Your task to perform on an android device: change notifications settings Image 0: 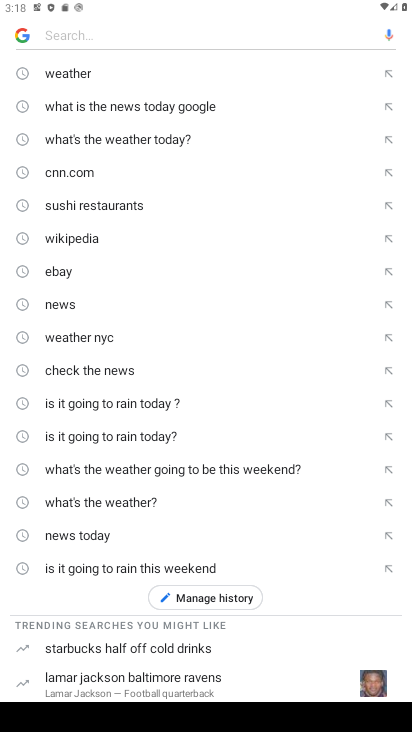
Step 0: press home button
Your task to perform on an android device: change notifications settings Image 1: 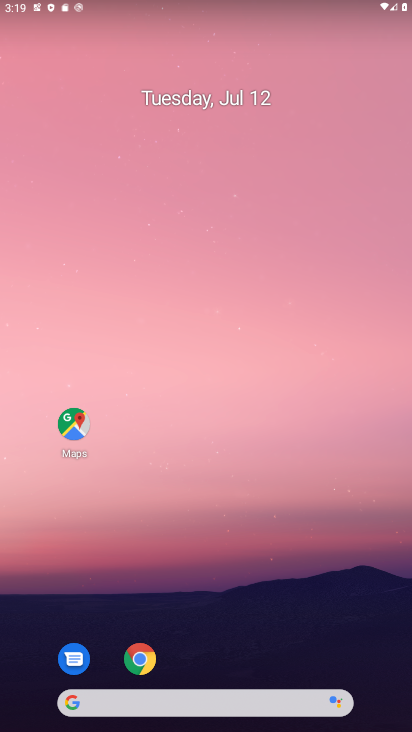
Step 1: click (214, 711)
Your task to perform on an android device: change notifications settings Image 2: 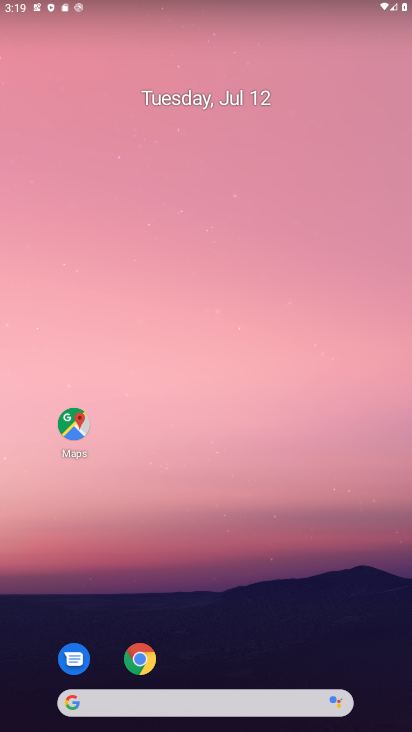
Step 2: drag from (212, 376) to (204, 123)
Your task to perform on an android device: change notifications settings Image 3: 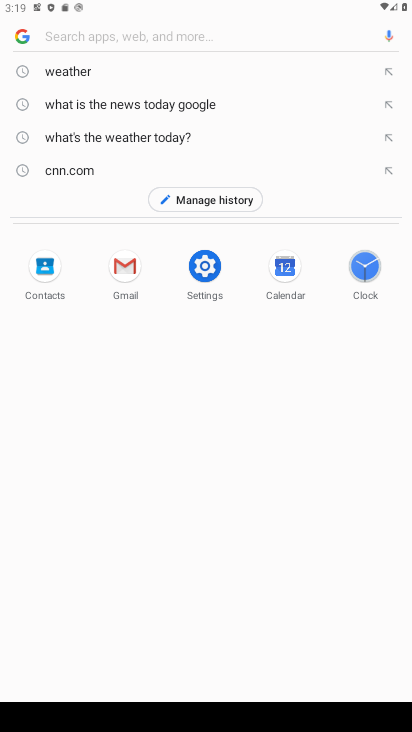
Step 3: press home button
Your task to perform on an android device: change notifications settings Image 4: 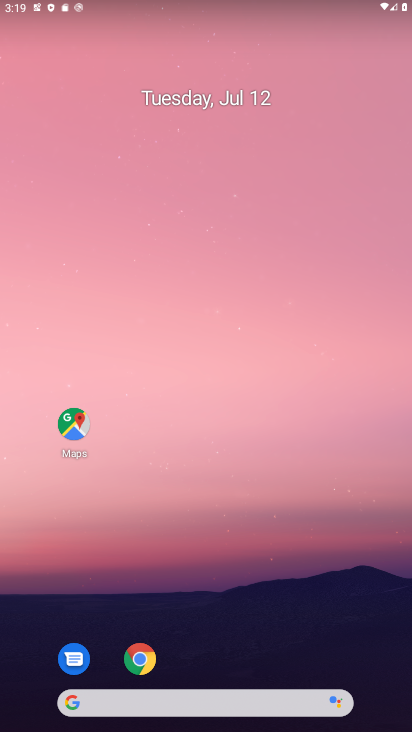
Step 4: drag from (203, 731) to (204, 68)
Your task to perform on an android device: change notifications settings Image 5: 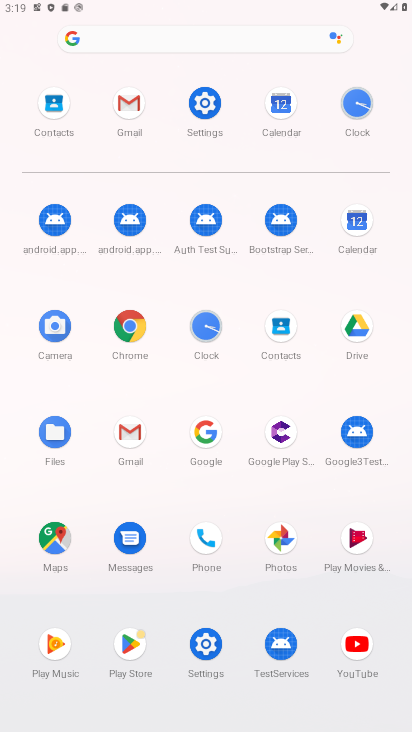
Step 5: click (204, 108)
Your task to perform on an android device: change notifications settings Image 6: 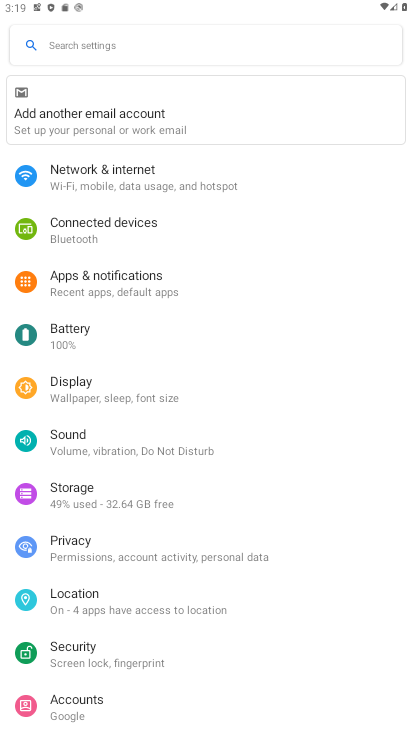
Step 6: click (110, 280)
Your task to perform on an android device: change notifications settings Image 7: 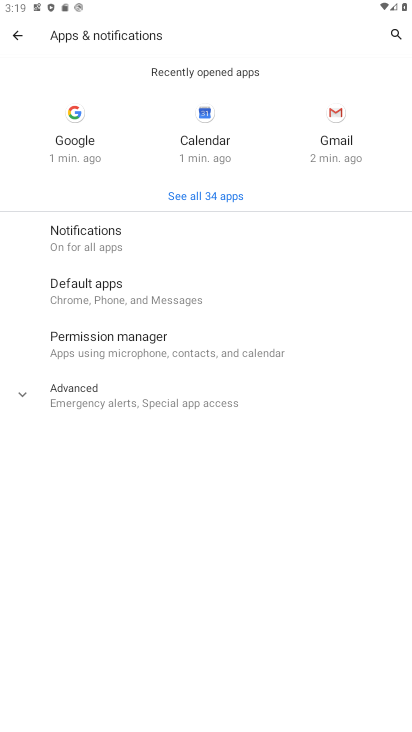
Step 7: click (107, 230)
Your task to perform on an android device: change notifications settings Image 8: 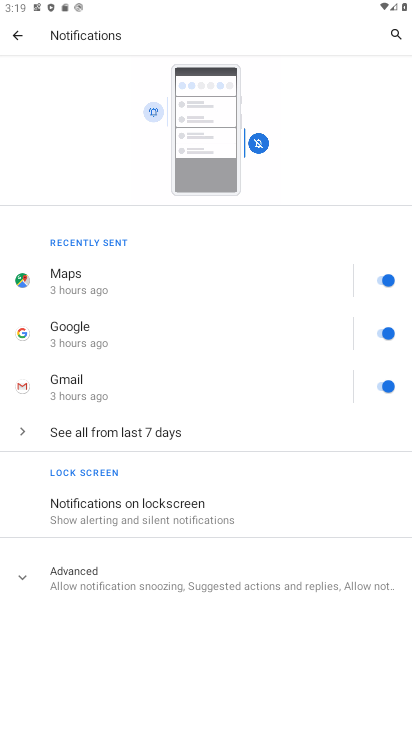
Step 8: click (79, 581)
Your task to perform on an android device: change notifications settings Image 9: 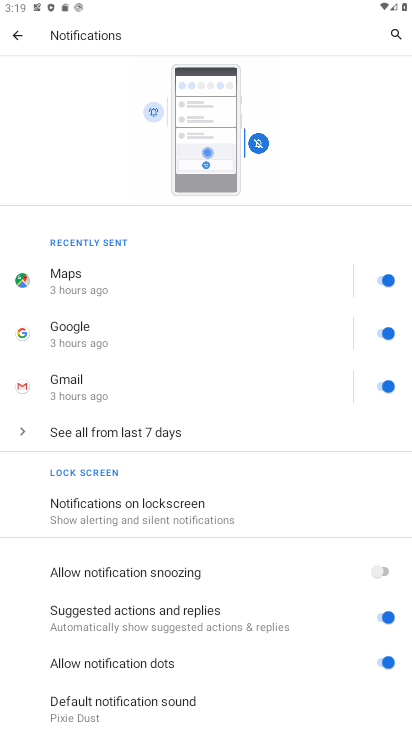
Step 9: click (390, 614)
Your task to perform on an android device: change notifications settings Image 10: 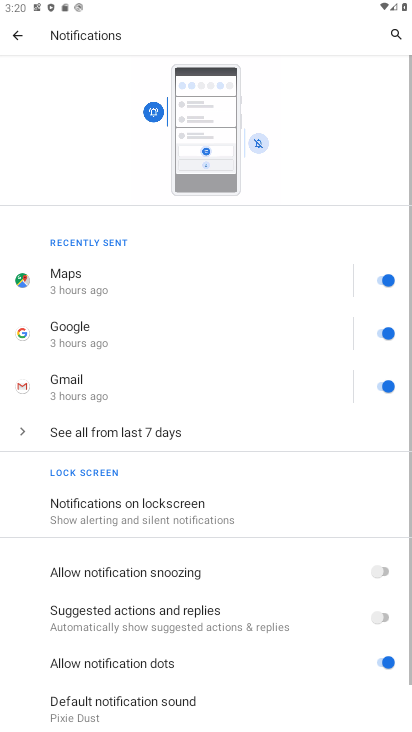
Step 10: task complete